Your task to perform on an android device: change notification settings in the gmail app Image 0: 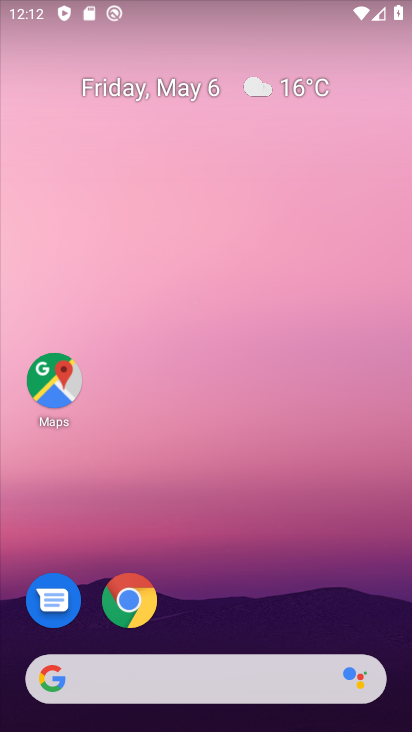
Step 0: drag from (208, 496) to (269, 118)
Your task to perform on an android device: change notification settings in the gmail app Image 1: 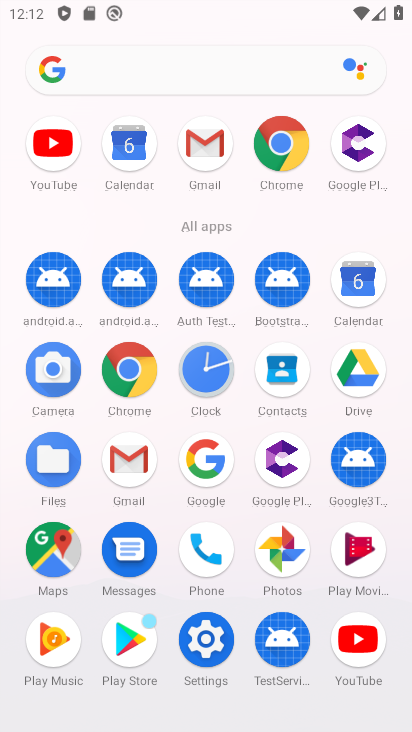
Step 1: click (209, 137)
Your task to perform on an android device: change notification settings in the gmail app Image 2: 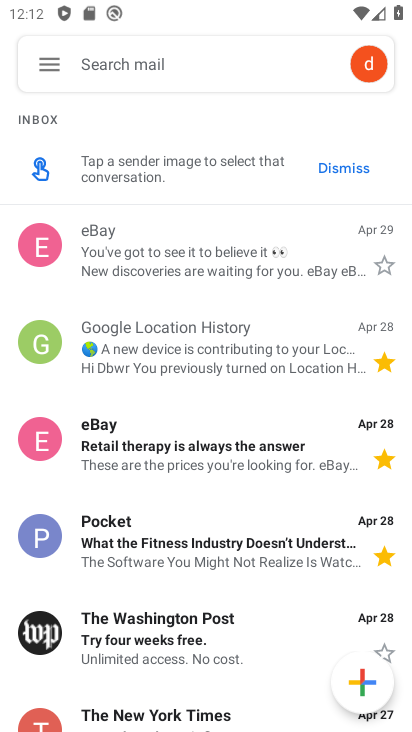
Step 2: click (54, 61)
Your task to perform on an android device: change notification settings in the gmail app Image 3: 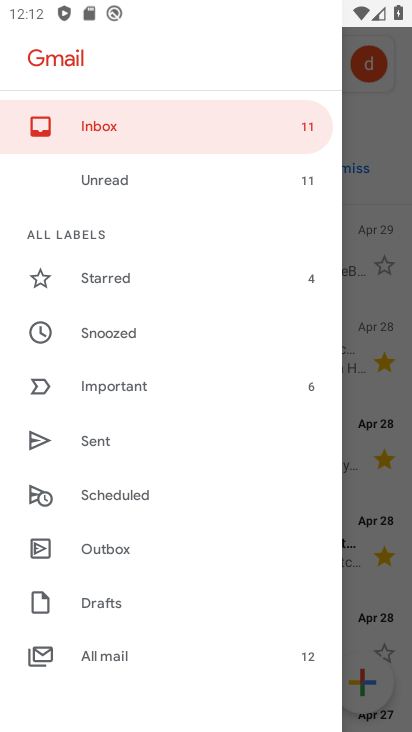
Step 3: drag from (104, 630) to (289, 87)
Your task to perform on an android device: change notification settings in the gmail app Image 4: 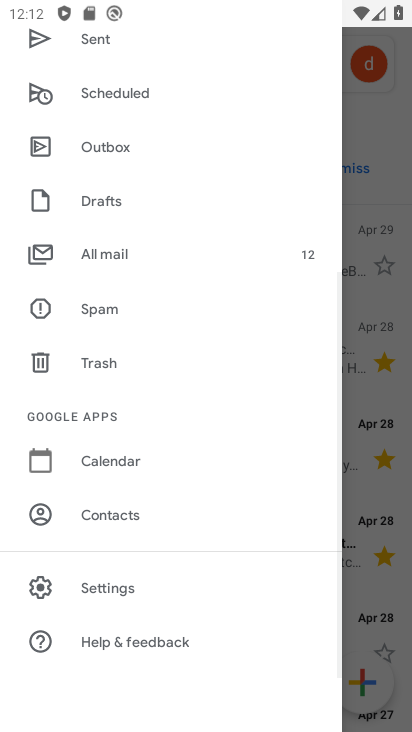
Step 4: click (108, 590)
Your task to perform on an android device: change notification settings in the gmail app Image 5: 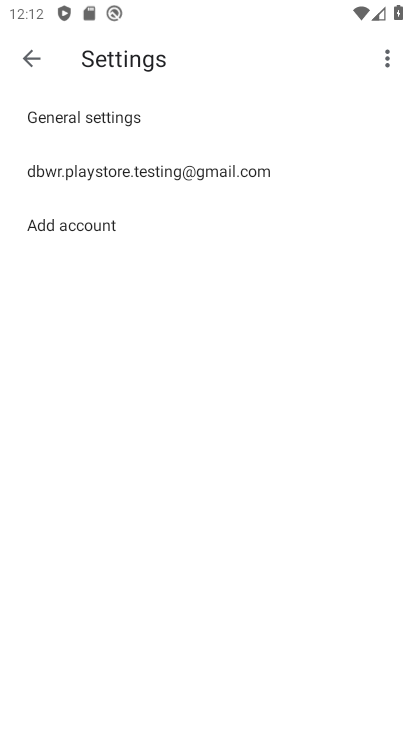
Step 5: click (127, 118)
Your task to perform on an android device: change notification settings in the gmail app Image 6: 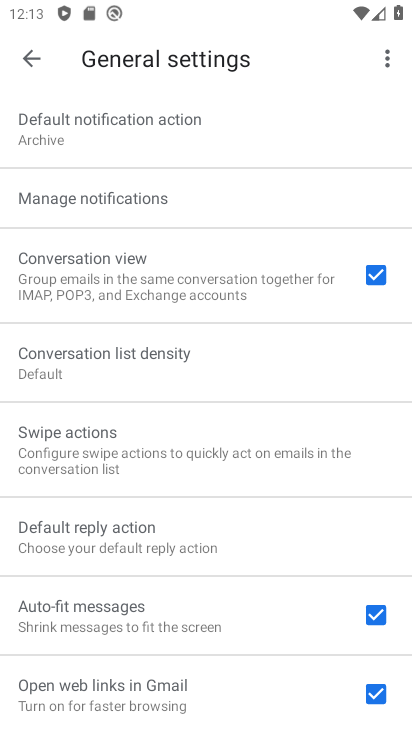
Step 6: click (153, 201)
Your task to perform on an android device: change notification settings in the gmail app Image 7: 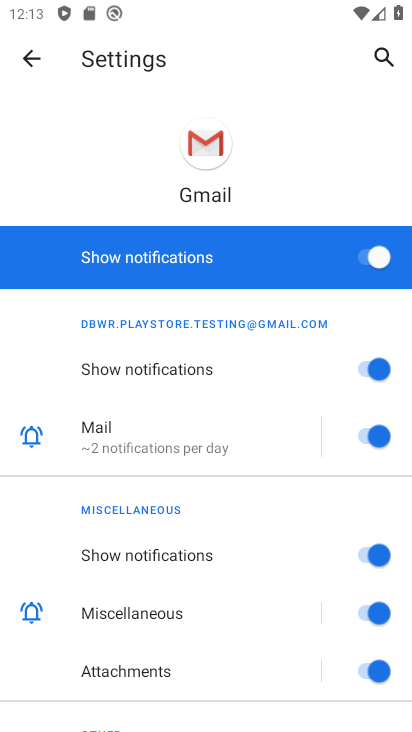
Step 7: click (366, 253)
Your task to perform on an android device: change notification settings in the gmail app Image 8: 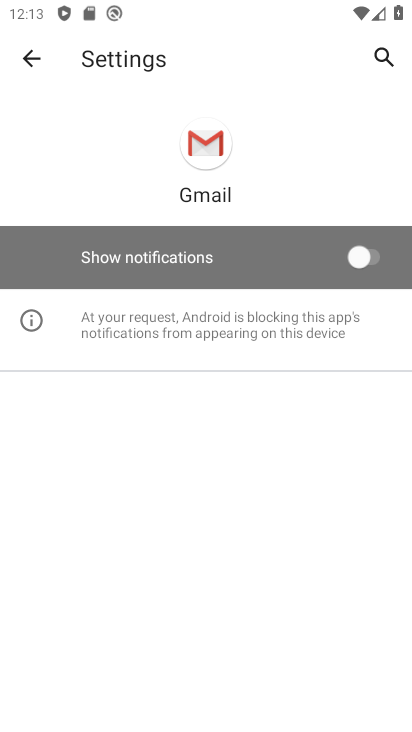
Step 8: task complete